Your task to perform on an android device: Add "usb-a" to the cart on walmart.com, then select checkout. Image 0: 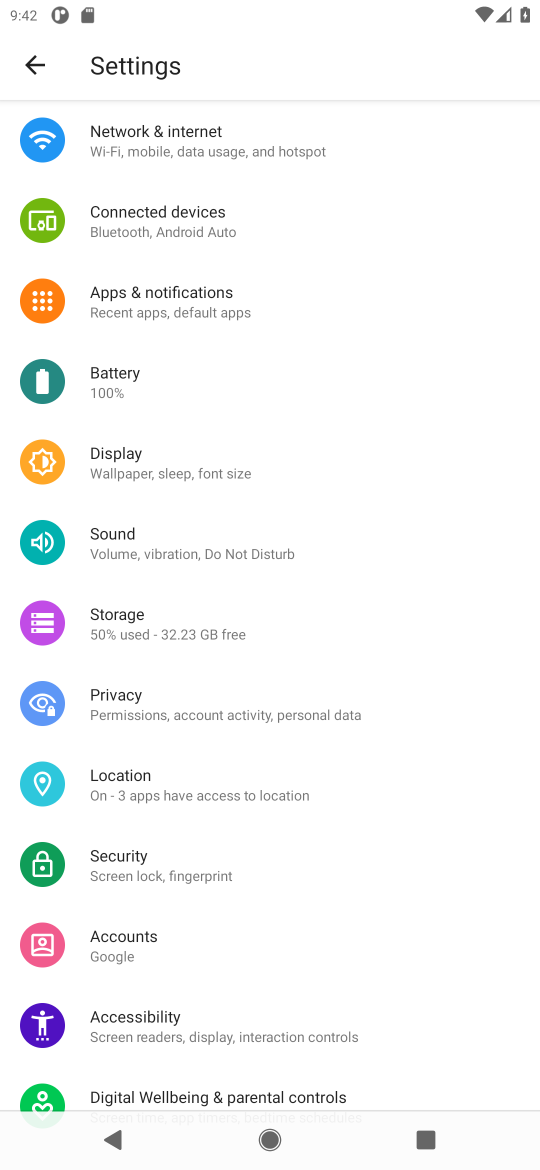
Step 0: press home button
Your task to perform on an android device: Add "usb-a" to the cart on walmart.com, then select checkout. Image 1: 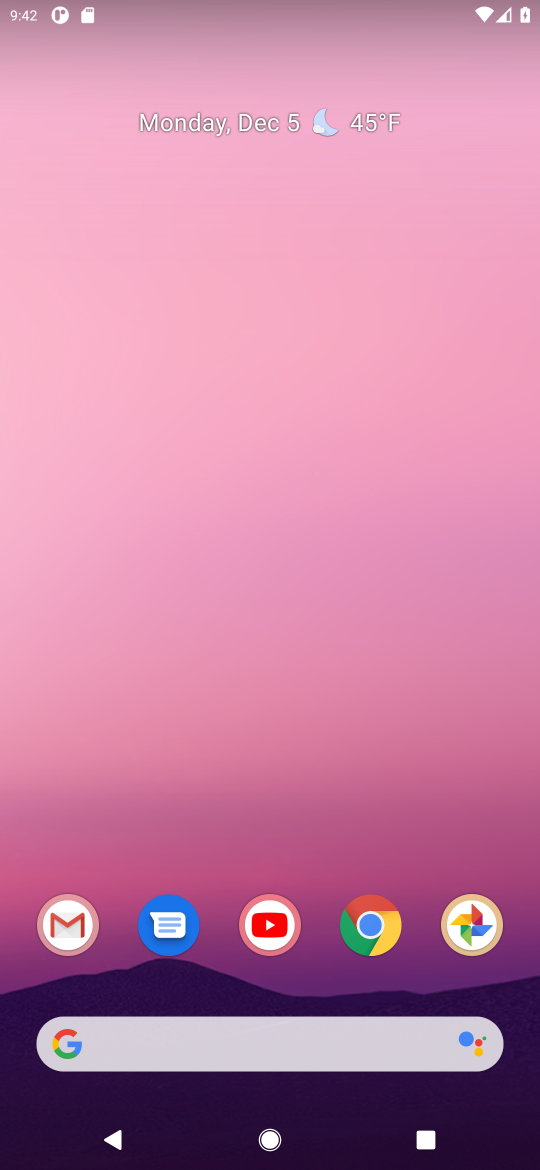
Step 1: click (371, 934)
Your task to perform on an android device: Add "usb-a" to the cart on walmart.com, then select checkout. Image 2: 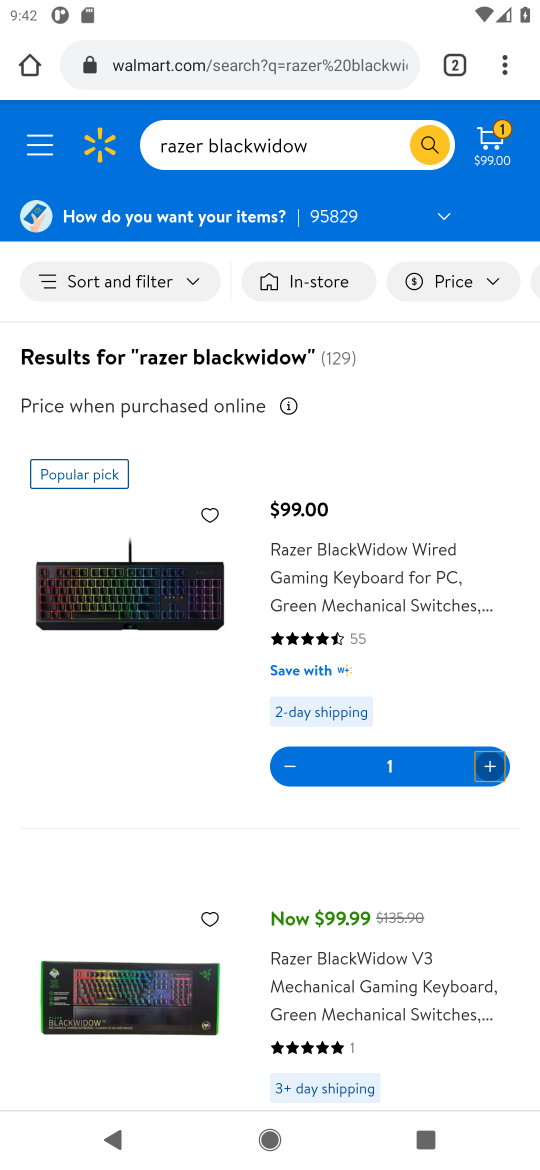
Step 2: click (219, 145)
Your task to perform on an android device: Add "usb-a" to the cart on walmart.com, then select checkout. Image 3: 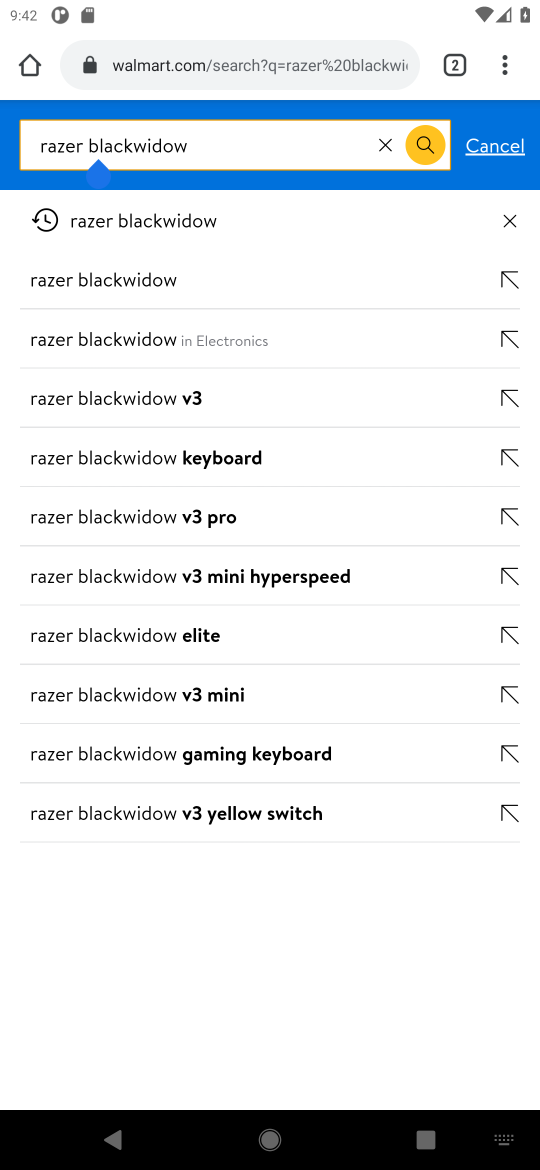
Step 3: click (387, 147)
Your task to perform on an android device: Add "usb-a" to the cart on walmart.com, then select checkout. Image 4: 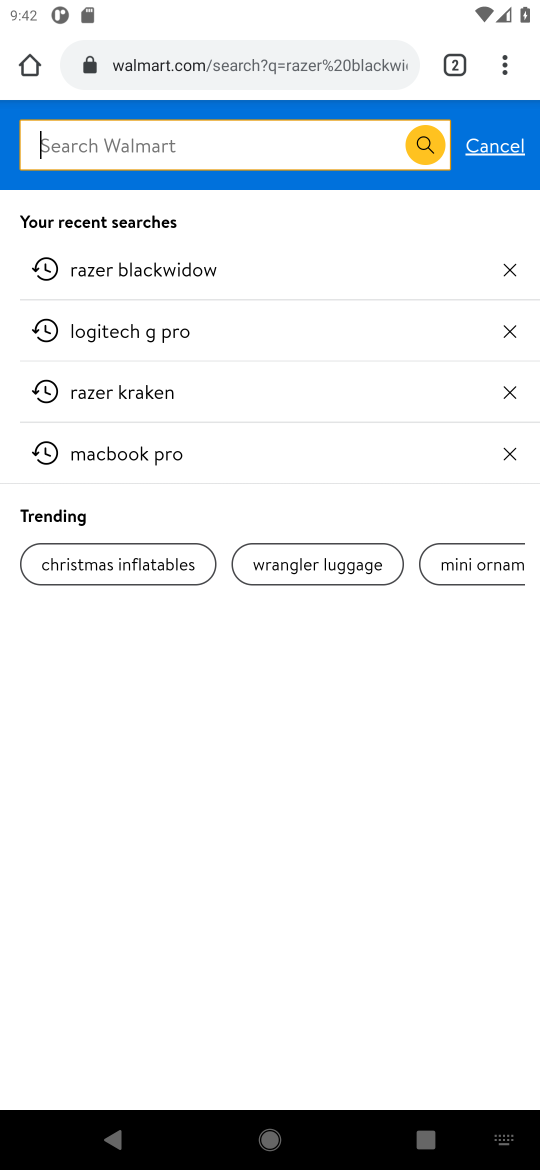
Step 4: type "usb-a"
Your task to perform on an android device: Add "usb-a" to the cart on walmart.com, then select checkout. Image 5: 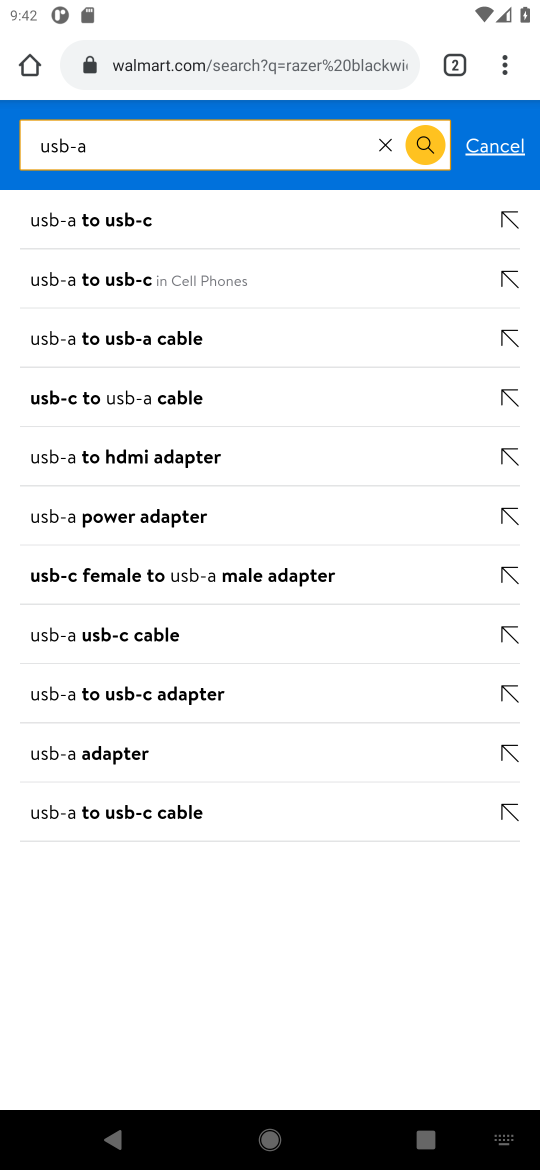
Step 5: click (428, 144)
Your task to perform on an android device: Add "usb-a" to the cart on walmart.com, then select checkout. Image 6: 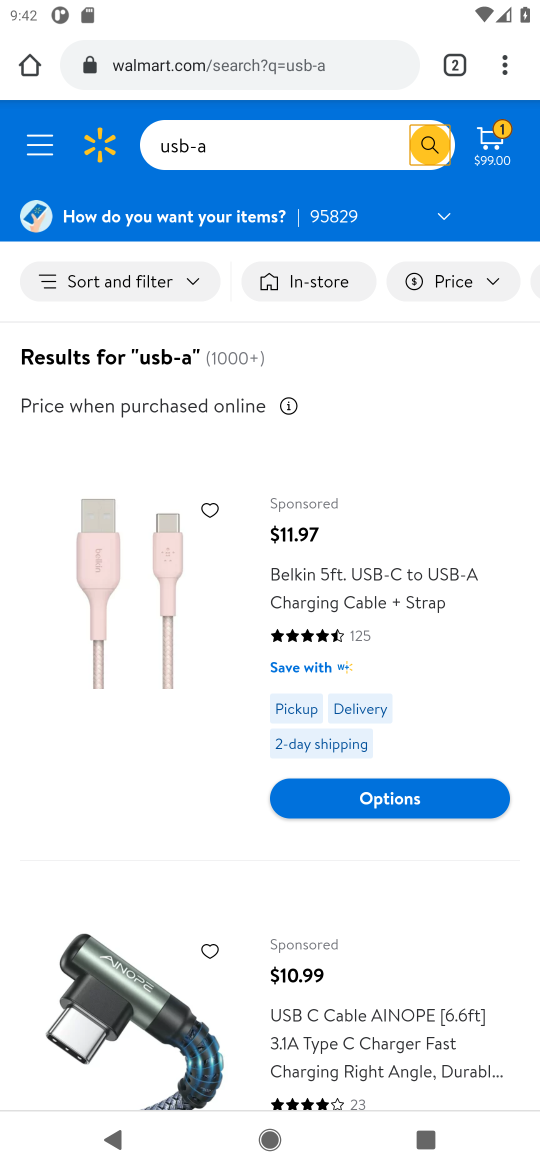
Step 6: click (388, 588)
Your task to perform on an android device: Add "usb-a" to the cart on walmart.com, then select checkout. Image 7: 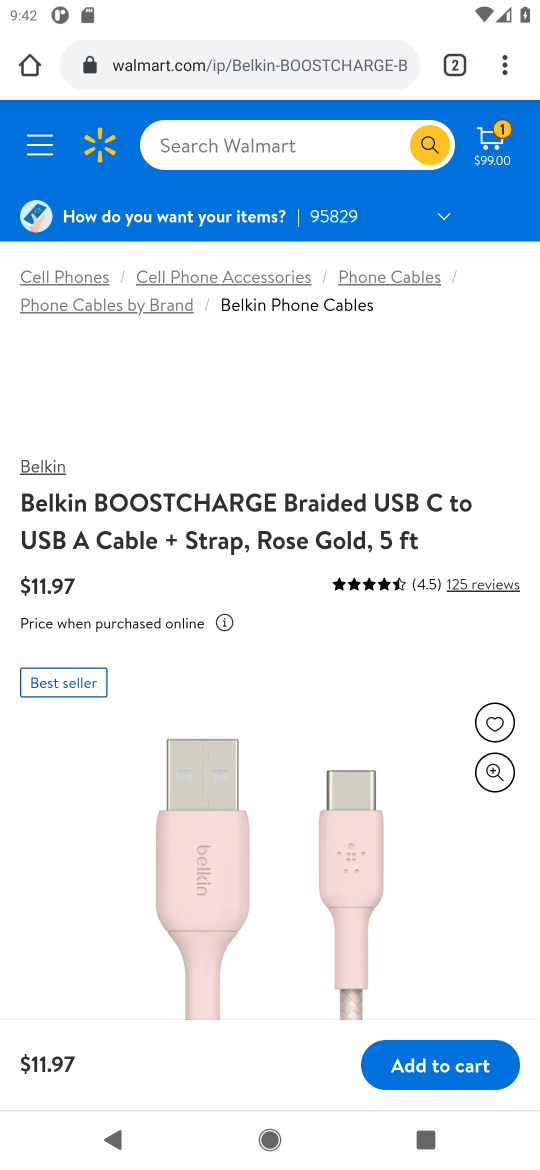
Step 7: click (447, 1068)
Your task to perform on an android device: Add "usb-a" to the cart on walmart.com, then select checkout. Image 8: 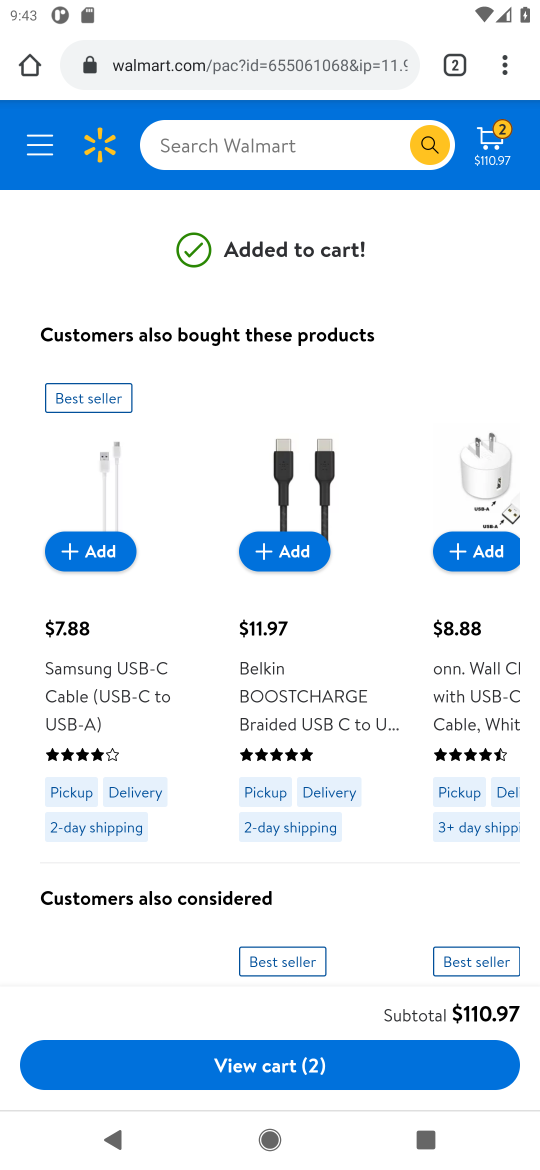
Step 8: click (486, 146)
Your task to perform on an android device: Add "usb-a" to the cart on walmart.com, then select checkout. Image 9: 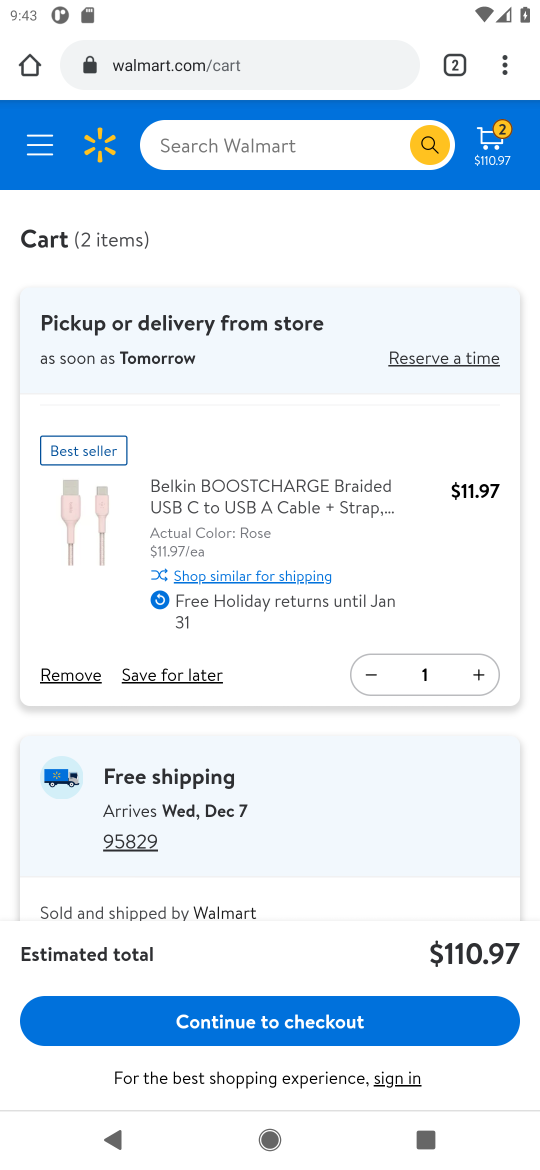
Step 9: click (243, 1024)
Your task to perform on an android device: Add "usb-a" to the cart on walmart.com, then select checkout. Image 10: 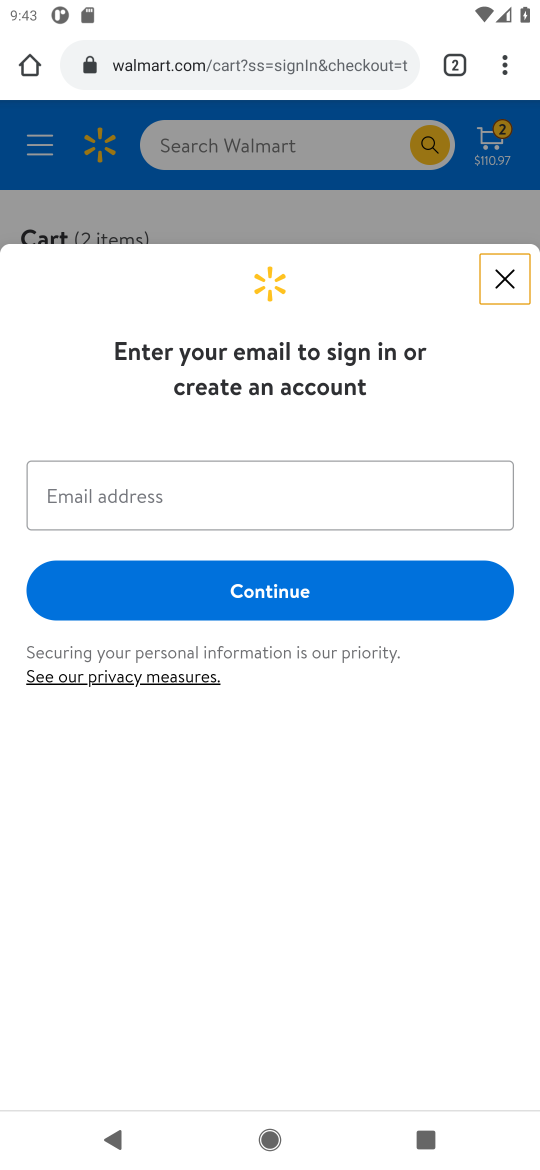
Step 10: task complete